Your task to perform on an android device: turn off notifications in google photos Image 0: 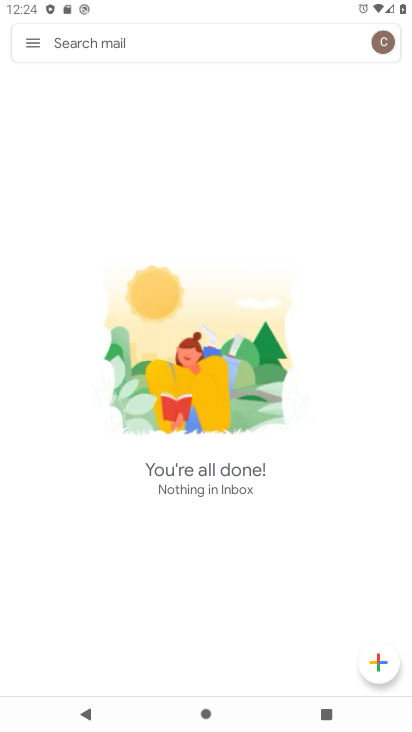
Step 0: press home button
Your task to perform on an android device: turn off notifications in google photos Image 1: 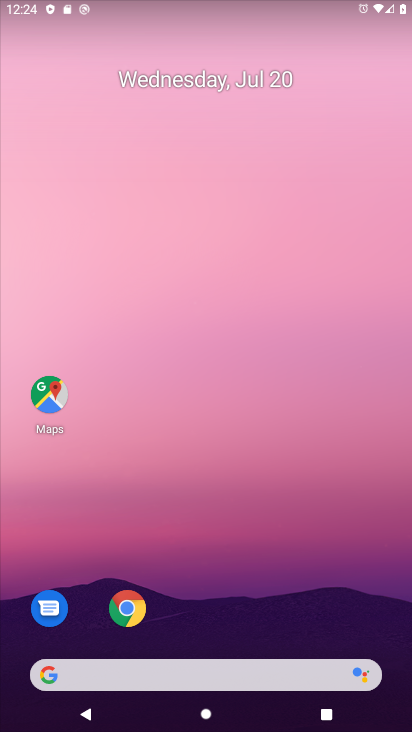
Step 1: drag from (177, 679) to (222, 144)
Your task to perform on an android device: turn off notifications in google photos Image 2: 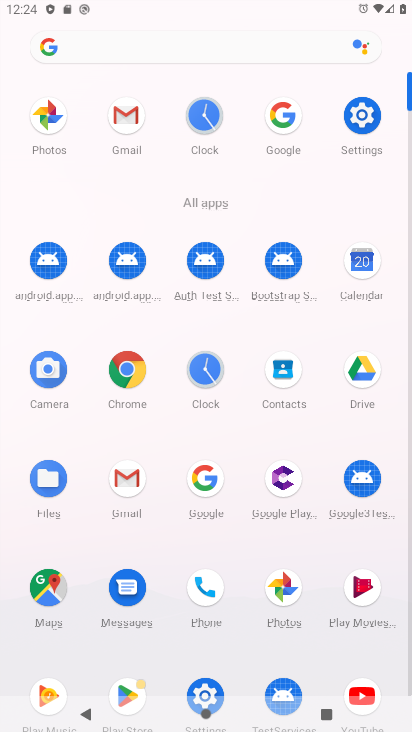
Step 2: click (49, 118)
Your task to perform on an android device: turn off notifications in google photos Image 3: 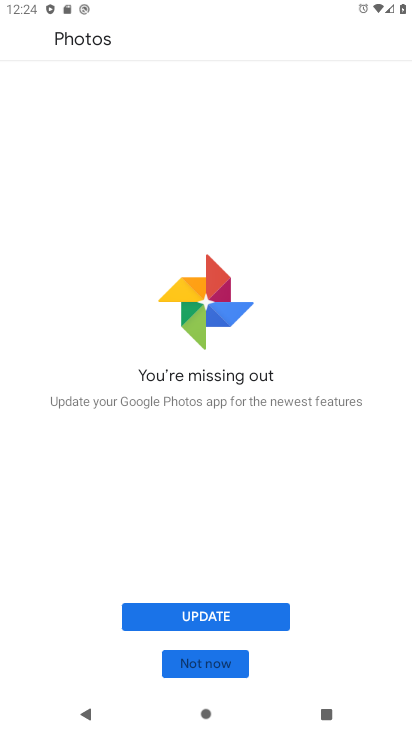
Step 3: click (207, 615)
Your task to perform on an android device: turn off notifications in google photos Image 4: 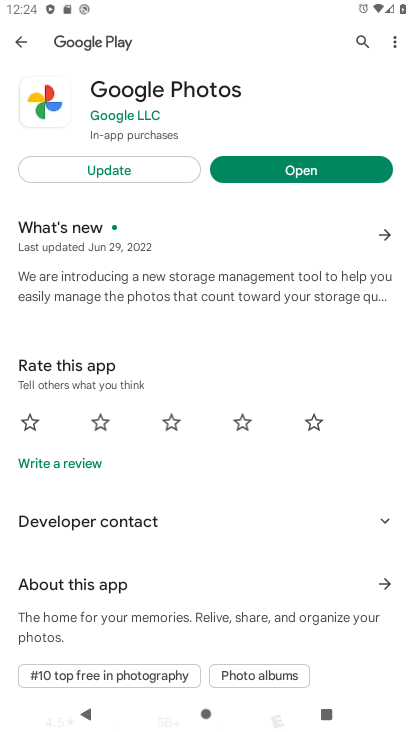
Step 4: click (107, 170)
Your task to perform on an android device: turn off notifications in google photos Image 5: 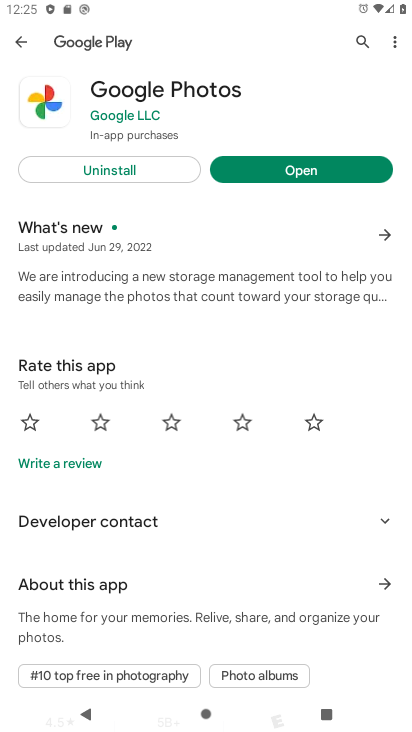
Step 5: click (269, 169)
Your task to perform on an android device: turn off notifications in google photos Image 6: 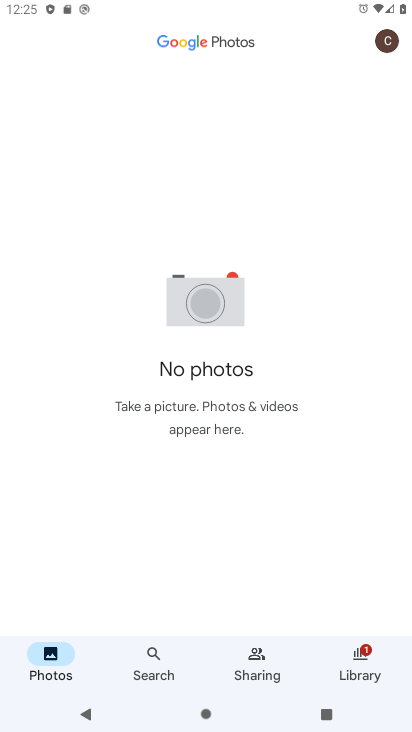
Step 6: click (388, 41)
Your task to perform on an android device: turn off notifications in google photos Image 7: 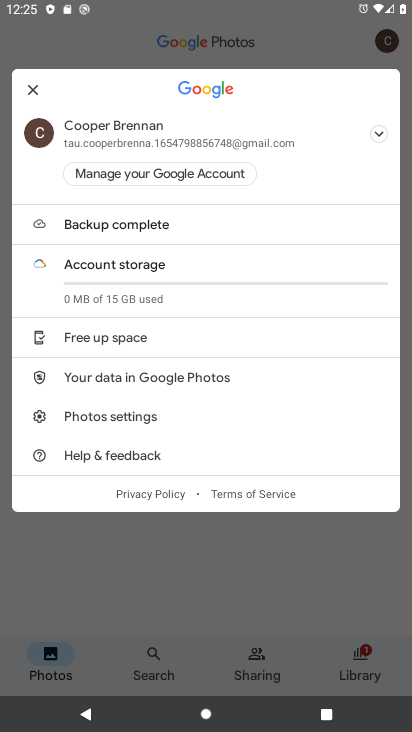
Step 7: click (99, 418)
Your task to perform on an android device: turn off notifications in google photos Image 8: 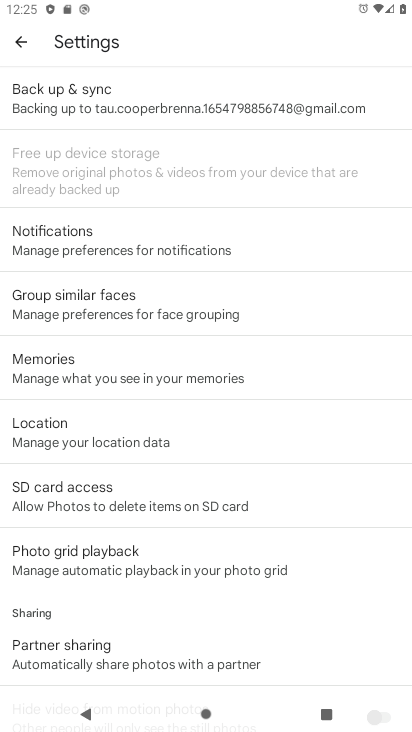
Step 8: click (161, 247)
Your task to perform on an android device: turn off notifications in google photos Image 9: 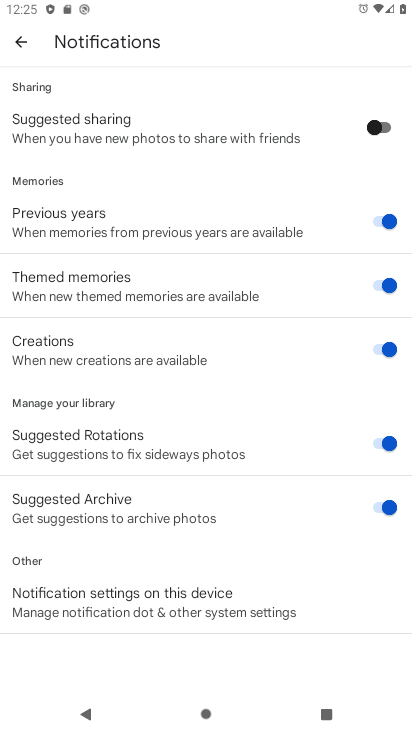
Step 9: click (168, 600)
Your task to perform on an android device: turn off notifications in google photos Image 10: 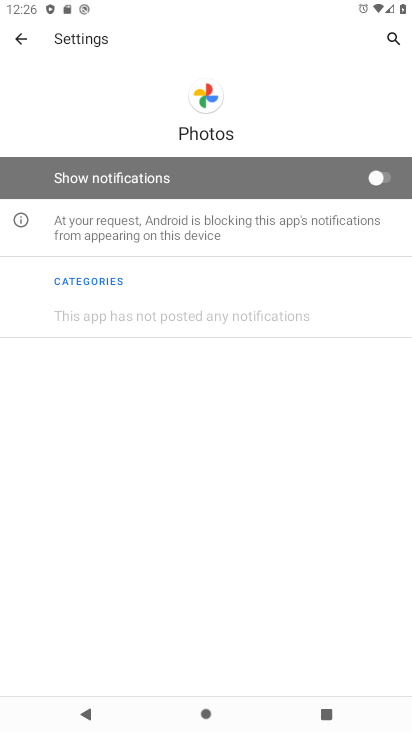
Step 10: task complete